Your task to perform on an android device: Open Youtube and go to "Your channel" Image 0: 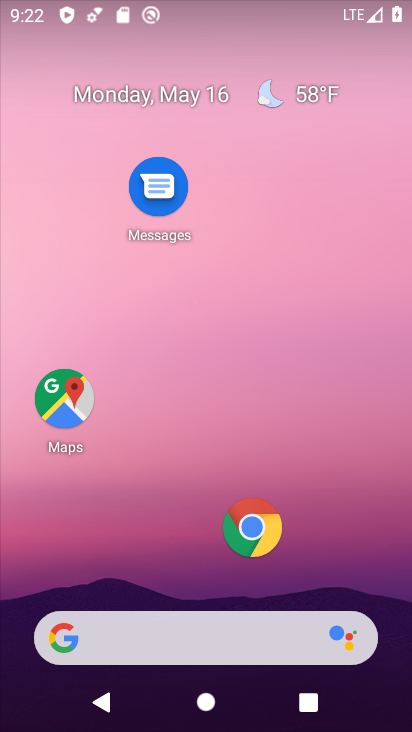
Step 0: drag from (165, 549) to (242, 62)
Your task to perform on an android device: Open Youtube and go to "Your channel" Image 1: 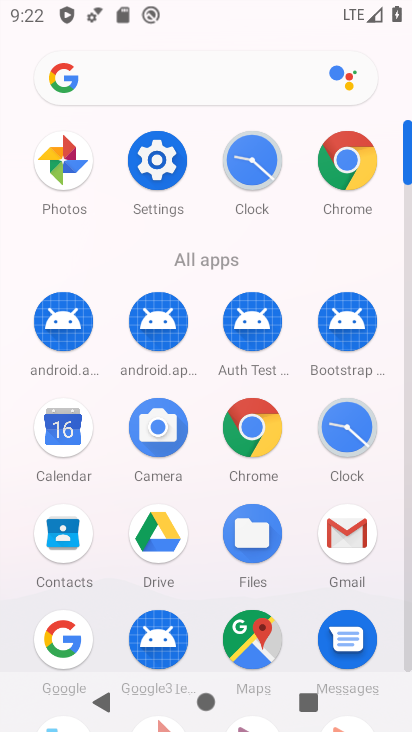
Step 1: drag from (207, 551) to (227, 147)
Your task to perform on an android device: Open Youtube and go to "Your channel" Image 2: 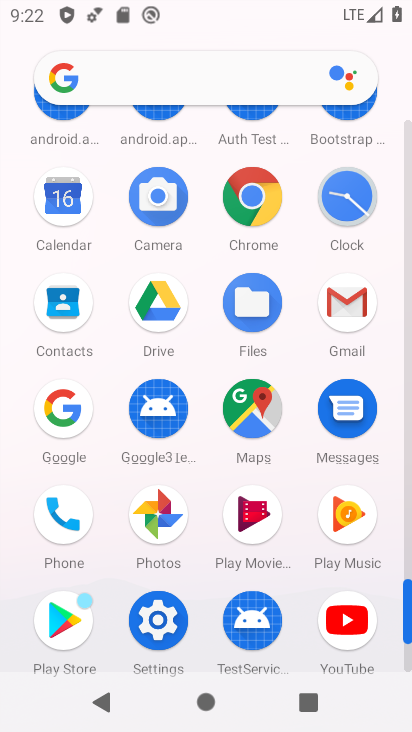
Step 2: click (348, 620)
Your task to perform on an android device: Open Youtube and go to "Your channel" Image 3: 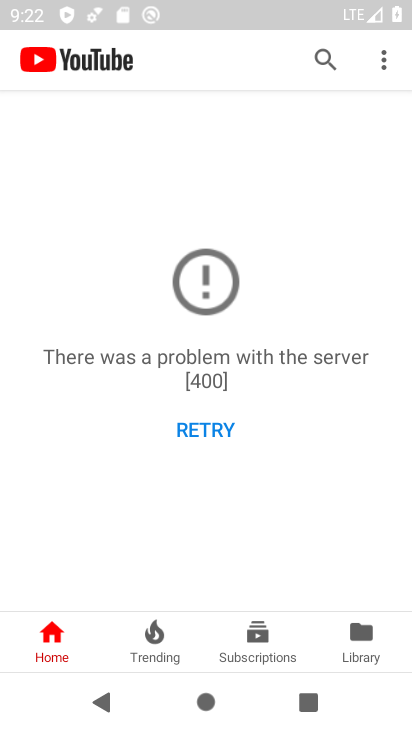
Step 3: task complete